Your task to perform on an android device: Search for Italian restaurants on Maps Image 0: 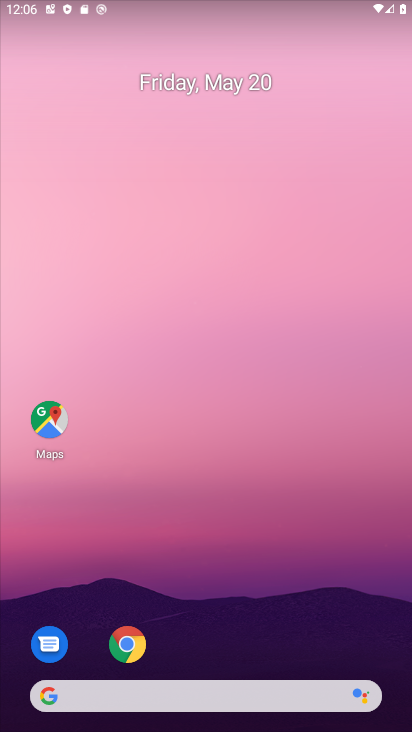
Step 0: click (146, 435)
Your task to perform on an android device: Search for Italian restaurants on Maps Image 1: 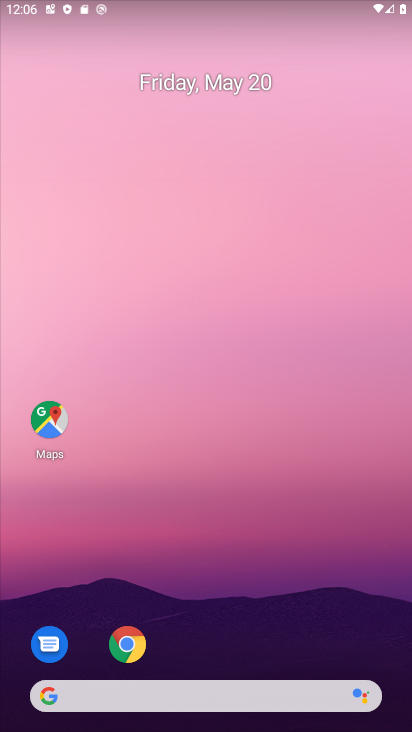
Step 1: click (50, 418)
Your task to perform on an android device: Search for Italian restaurants on Maps Image 2: 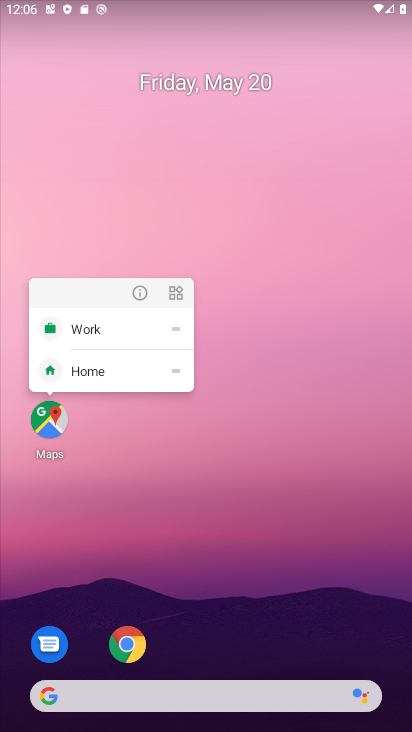
Step 2: click (50, 418)
Your task to perform on an android device: Search for Italian restaurants on Maps Image 3: 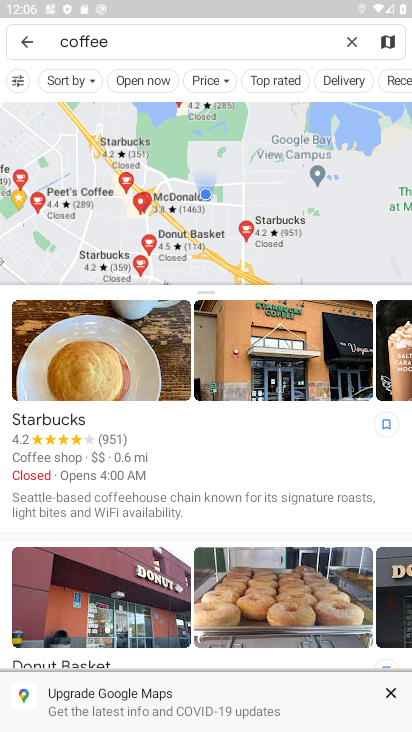
Step 3: click (354, 41)
Your task to perform on an android device: Search for Italian restaurants on Maps Image 4: 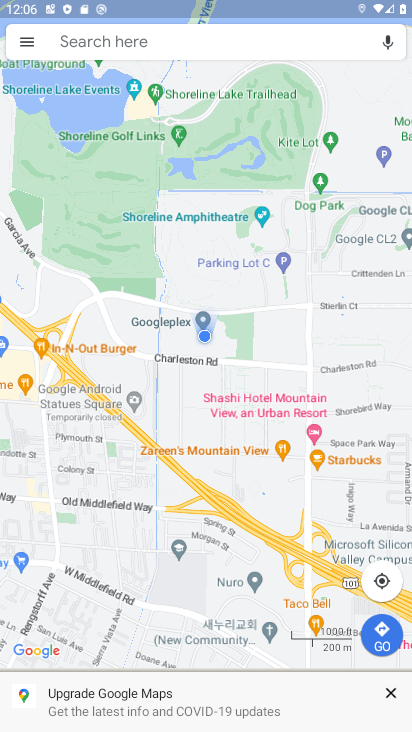
Step 4: click (86, 38)
Your task to perform on an android device: Search for Italian restaurants on Maps Image 5: 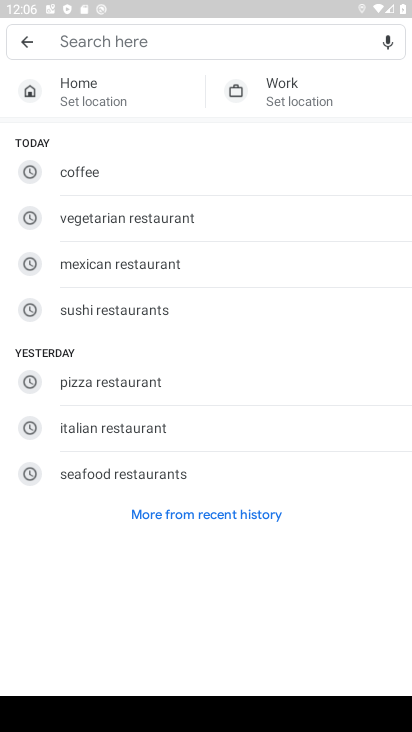
Step 5: type "italian restaurant "
Your task to perform on an android device: Search for Italian restaurants on Maps Image 6: 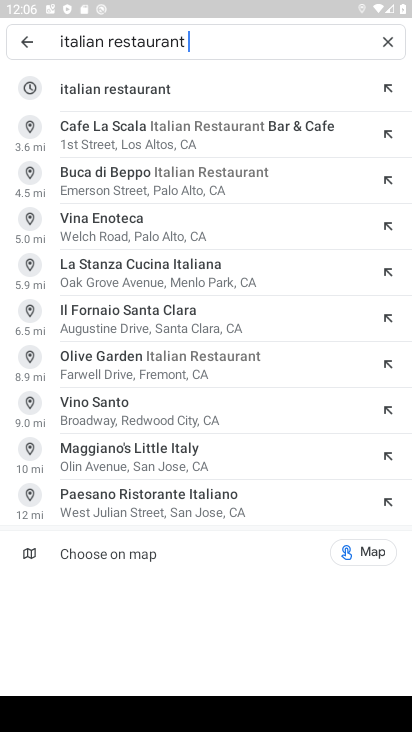
Step 6: click (95, 95)
Your task to perform on an android device: Search for Italian restaurants on Maps Image 7: 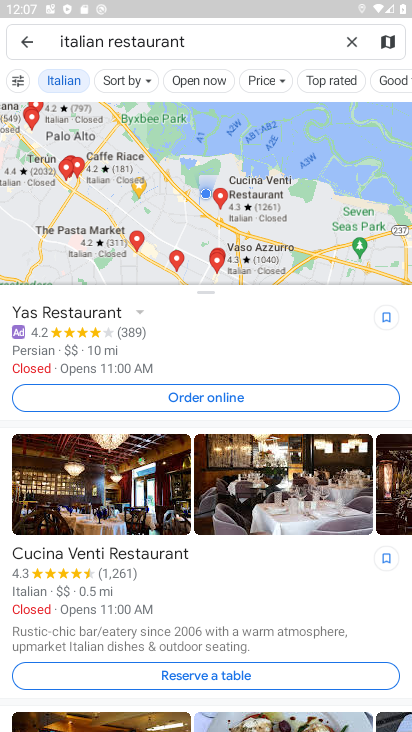
Step 7: task complete